Your task to perform on an android device: Open wifi settings Image 0: 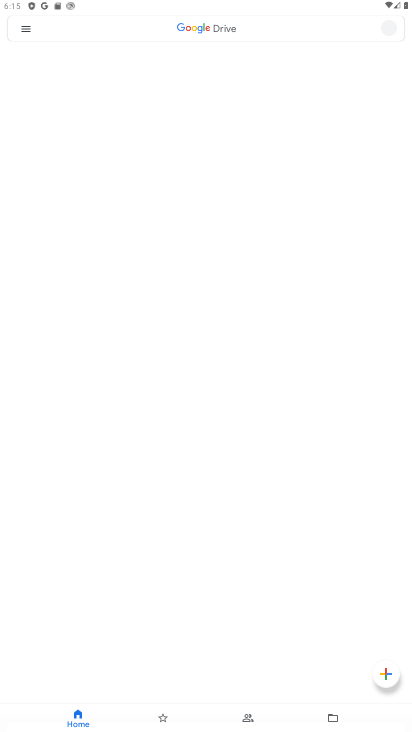
Step 0: press home button
Your task to perform on an android device: Open wifi settings Image 1: 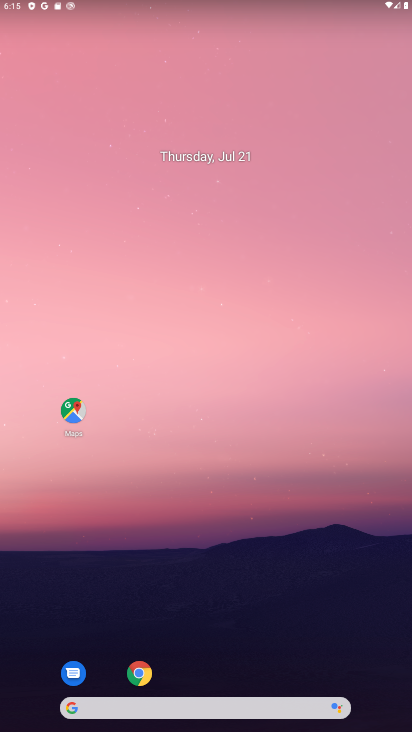
Step 1: drag from (167, 298) to (173, 222)
Your task to perform on an android device: Open wifi settings Image 2: 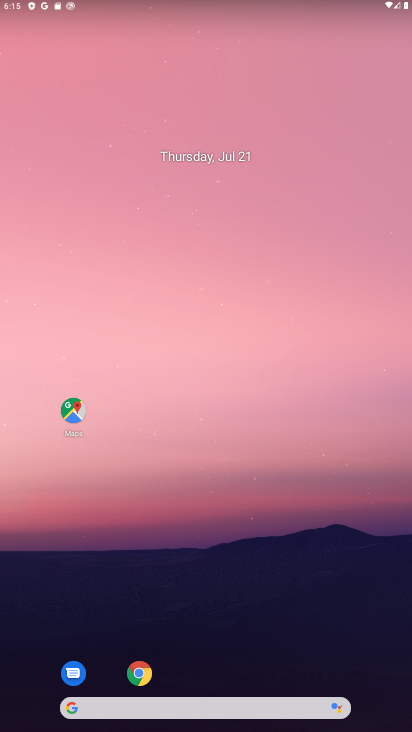
Step 2: drag from (181, 593) to (178, 78)
Your task to perform on an android device: Open wifi settings Image 3: 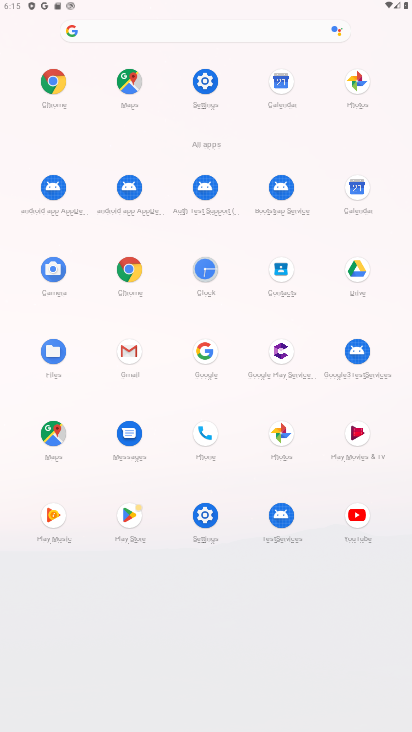
Step 3: click (210, 78)
Your task to perform on an android device: Open wifi settings Image 4: 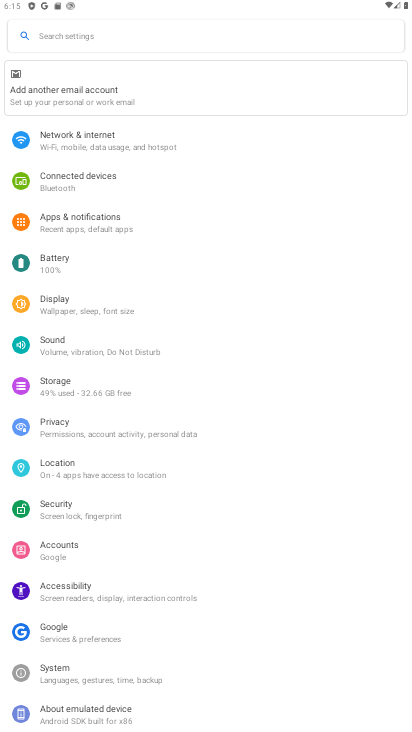
Step 4: click (98, 147)
Your task to perform on an android device: Open wifi settings Image 5: 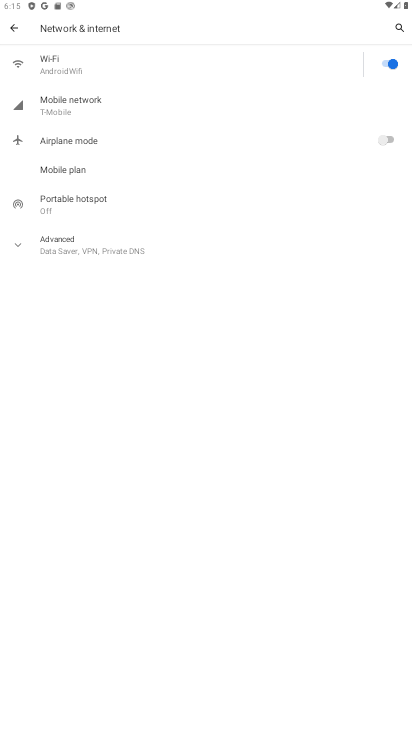
Step 5: click (115, 66)
Your task to perform on an android device: Open wifi settings Image 6: 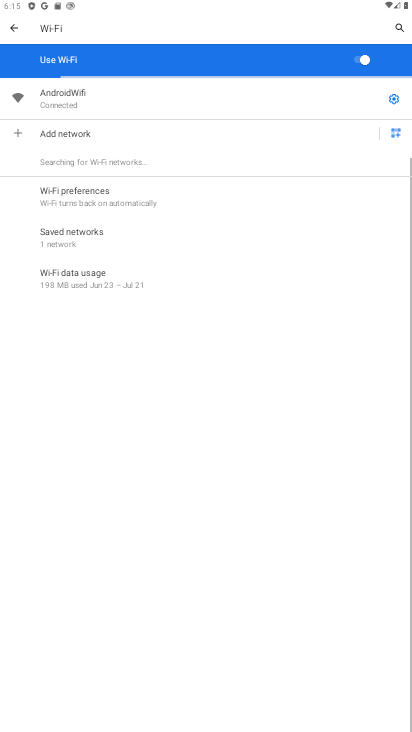
Step 6: task complete